Your task to perform on an android device: delete a single message in the gmail app Image 0: 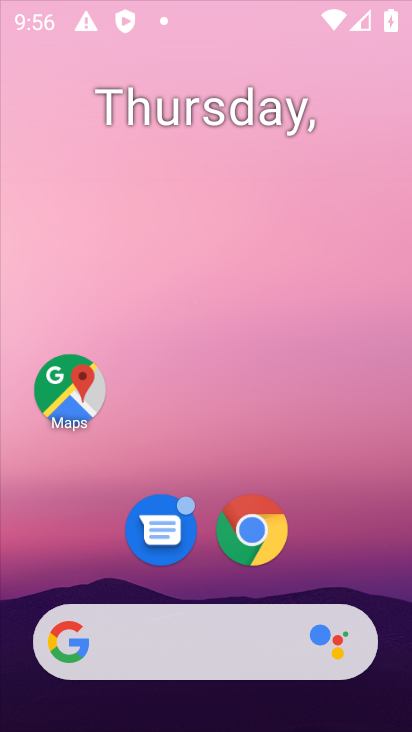
Step 0: press home button
Your task to perform on an android device: delete a single message in the gmail app Image 1: 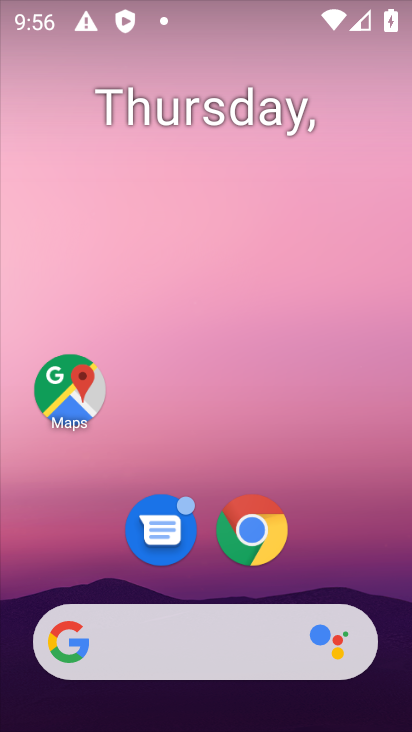
Step 1: press home button
Your task to perform on an android device: delete a single message in the gmail app Image 2: 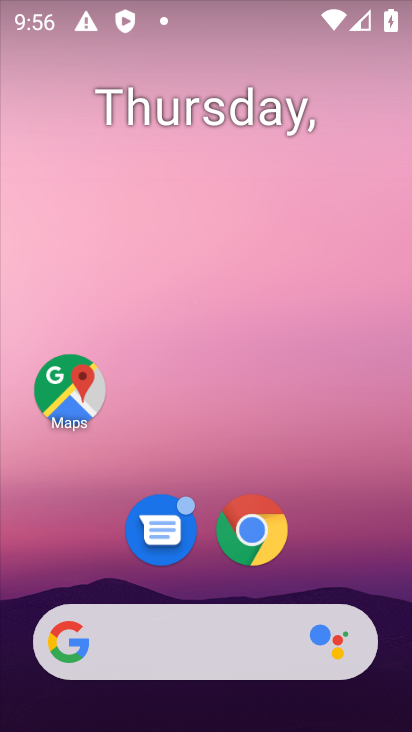
Step 2: drag from (350, 558) to (334, 1)
Your task to perform on an android device: delete a single message in the gmail app Image 3: 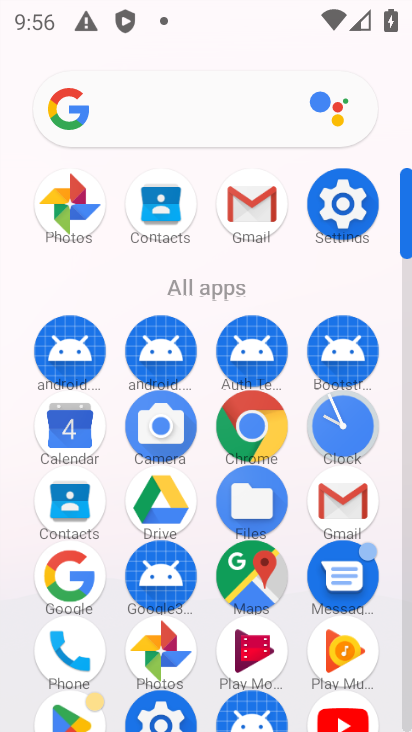
Step 3: click (244, 193)
Your task to perform on an android device: delete a single message in the gmail app Image 4: 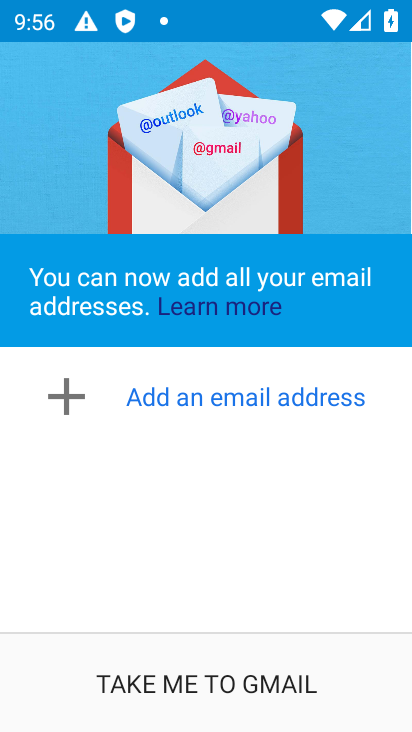
Step 4: task complete